Your task to perform on an android device: turn on wifi Image 0: 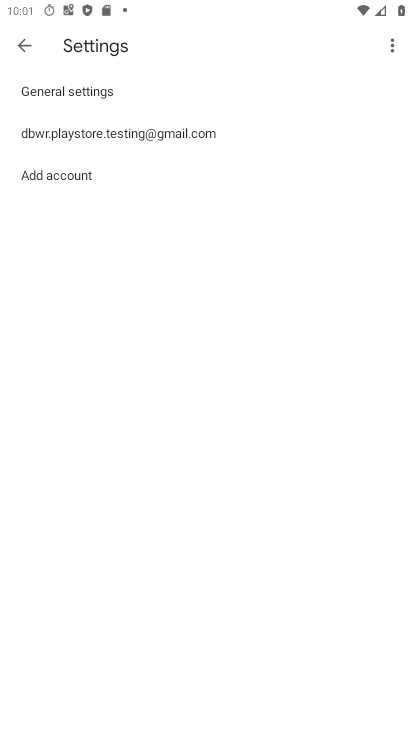
Step 0: press home button
Your task to perform on an android device: turn on wifi Image 1: 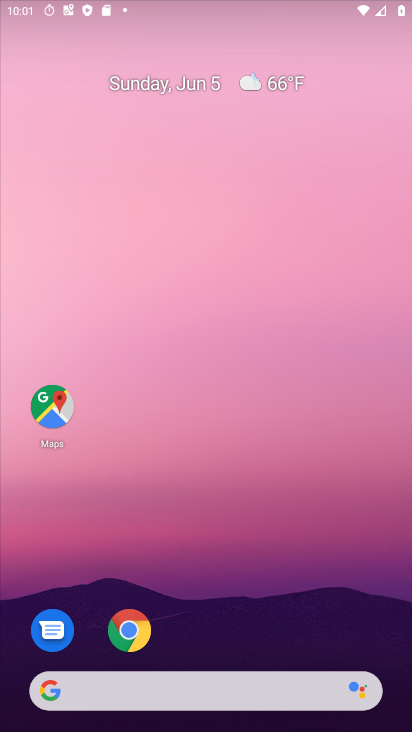
Step 1: drag from (218, 412) to (218, 1)
Your task to perform on an android device: turn on wifi Image 2: 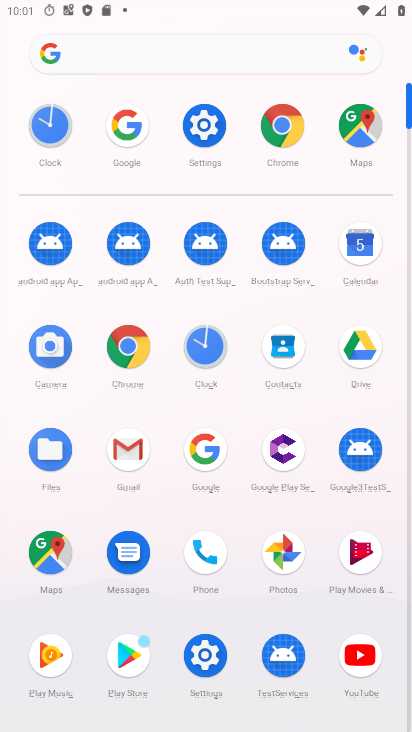
Step 2: click (198, 126)
Your task to perform on an android device: turn on wifi Image 3: 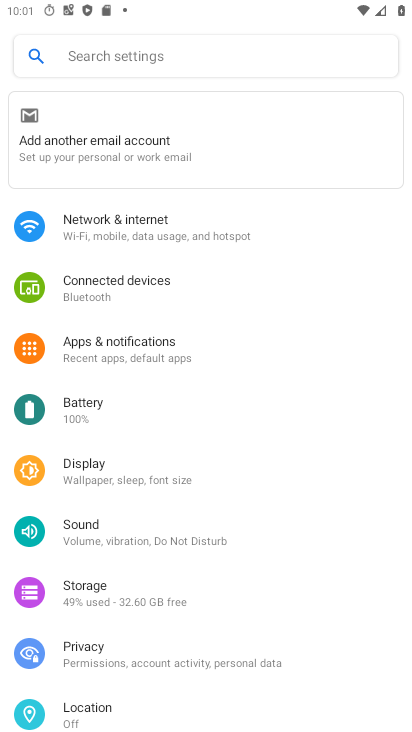
Step 3: click (130, 226)
Your task to perform on an android device: turn on wifi Image 4: 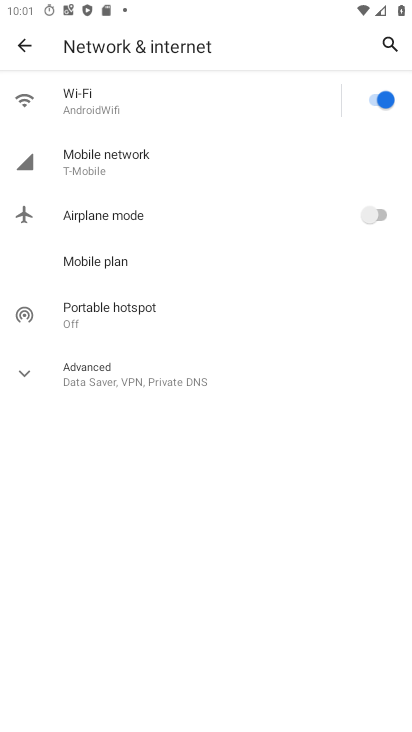
Step 4: task complete